Your task to perform on an android device: Show me productivity apps on the Play Store Image 0: 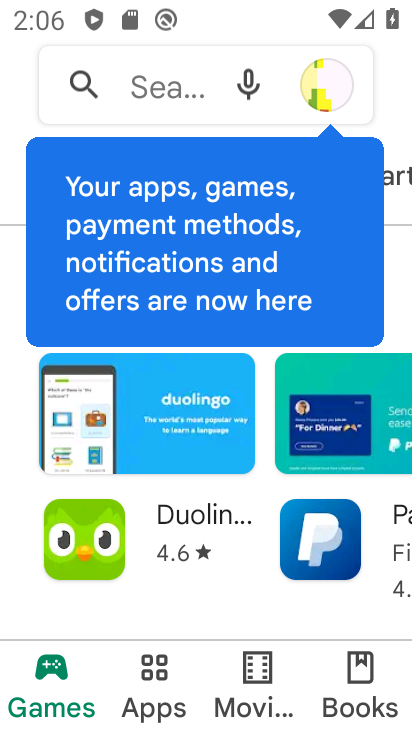
Step 0: press home button
Your task to perform on an android device: Show me productivity apps on the Play Store Image 1: 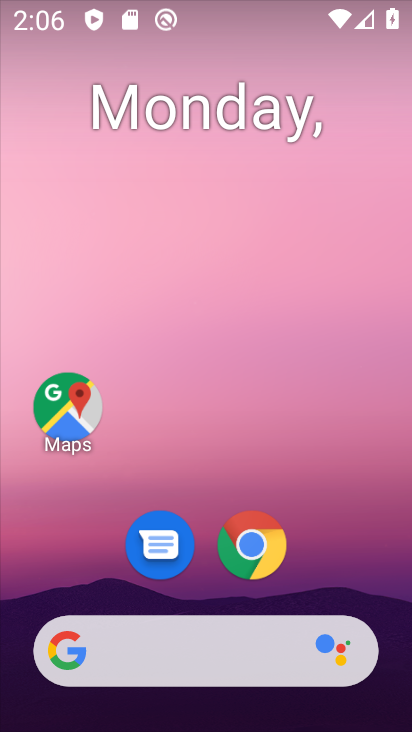
Step 1: drag from (200, 578) to (292, 10)
Your task to perform on an android device: Show me productivity apps on the Play Store Image 2: 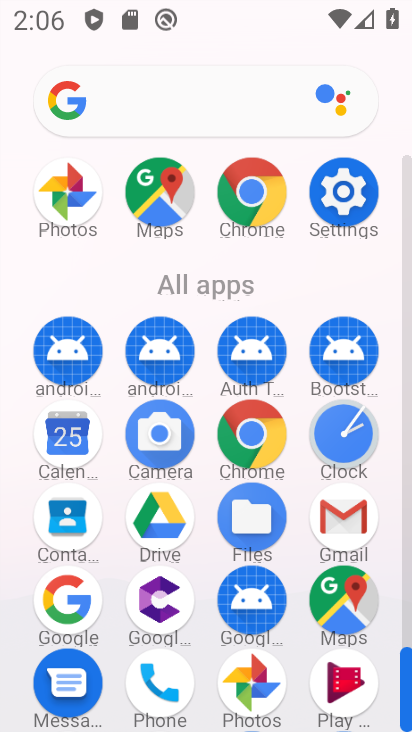
Step 2: drag from (197, 612) to (202, 159)
Your task to perform on an android device: Show me productivity apps on the Play Store Image 3: 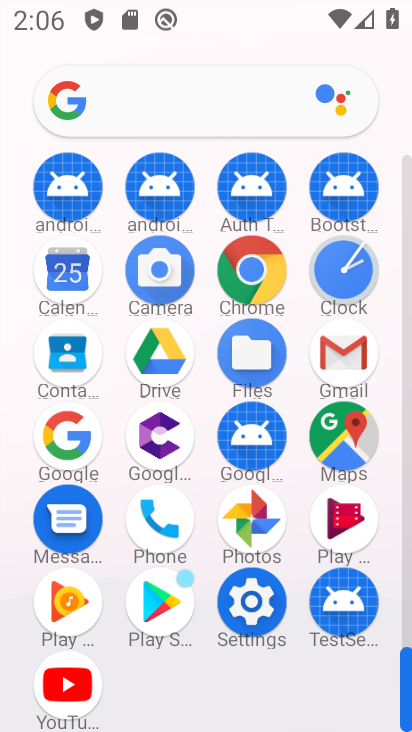
Step 3: click (154, 598)
Your task to perform on an android device: Show me productivity apps on the Play Store Image 4: 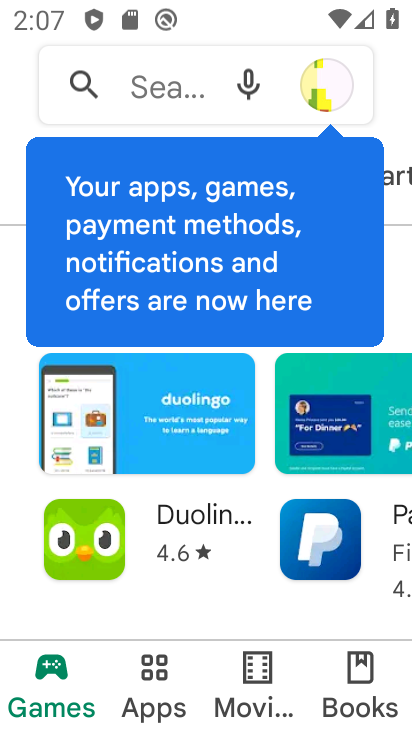
Step 4: click (146, 708)
Your task to perform on an android device: Show me productivity apps on the Play Store Image 5: 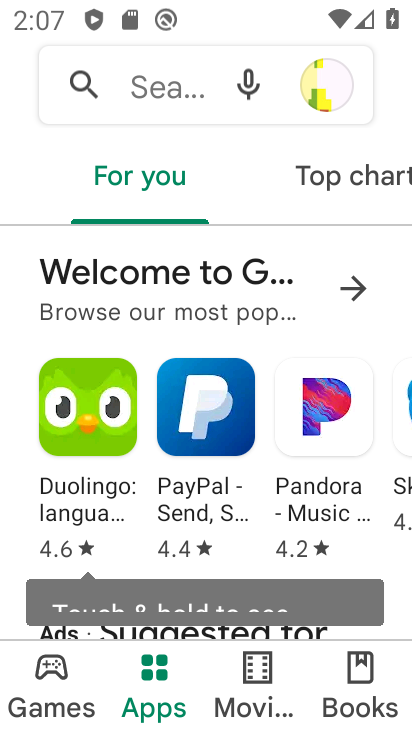
Step 5: drag from (194, 460) to (251, 89)
Your task to perform on an android device: Show me productivity apps on the Play Store Image 6: 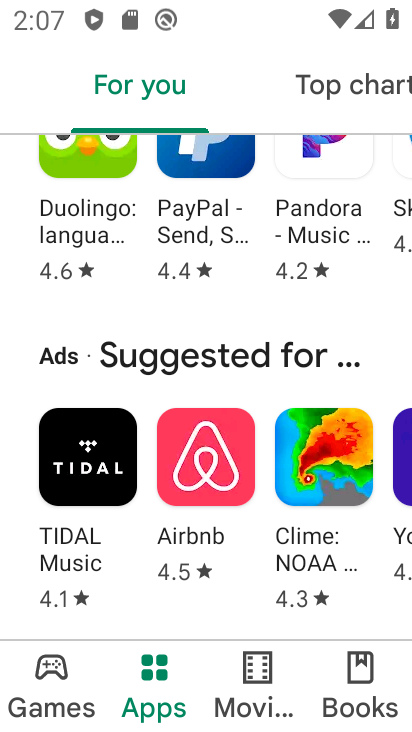
Step 6: drag from (192, 565) to (252, 115)
Your task to perform on an android device: Show me productivity apps on the Play Store Image 7: 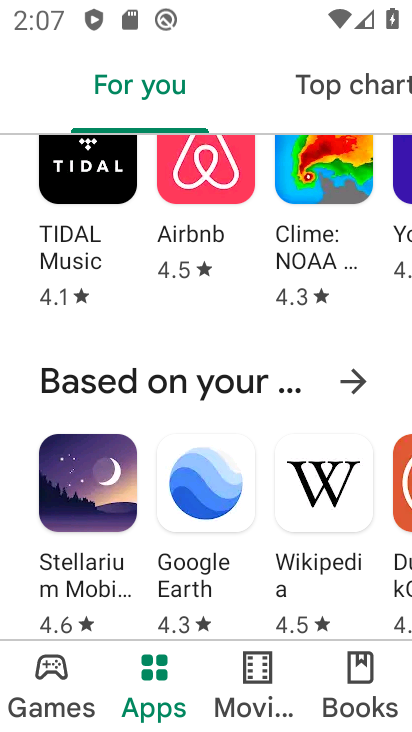
Step 7: drag from (186, 500) to (231, 127)
Your task to perform on an android device: Show me productivity apps on the Play Store Image 8: 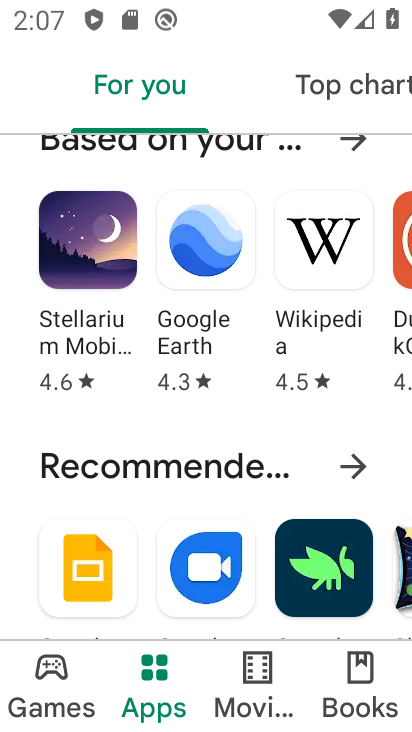
Step 8: drag from (147, 576) to (265, 89)
Your task to perform on an android device: Show me productivity apps on the Play Store Image 9: 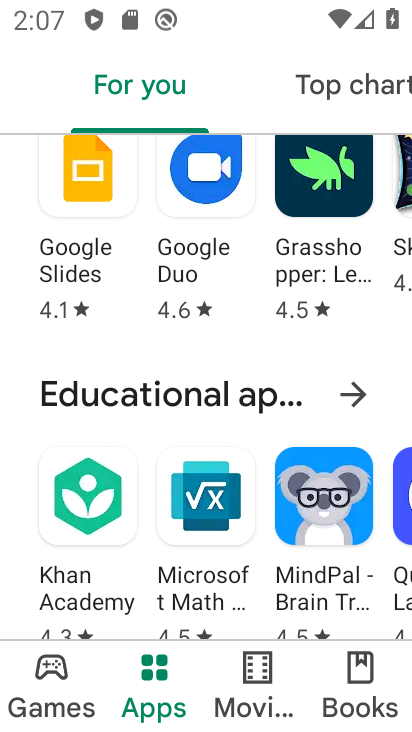
Step 9: drag from (151, 602) to (223, 24)
Your task to perform on an android device: Show me productivity apps on the Play Store Image 10: 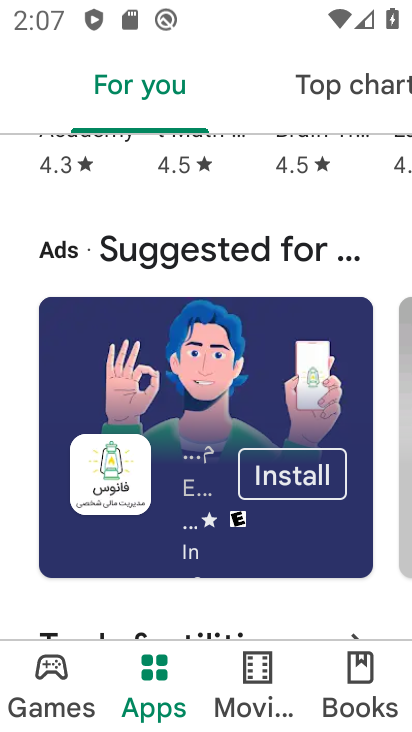
Step 10: drag from (121, 591) to (248, 30)
Your task to perform on an android device: Show me productivity apps on the Play Store Image 11: 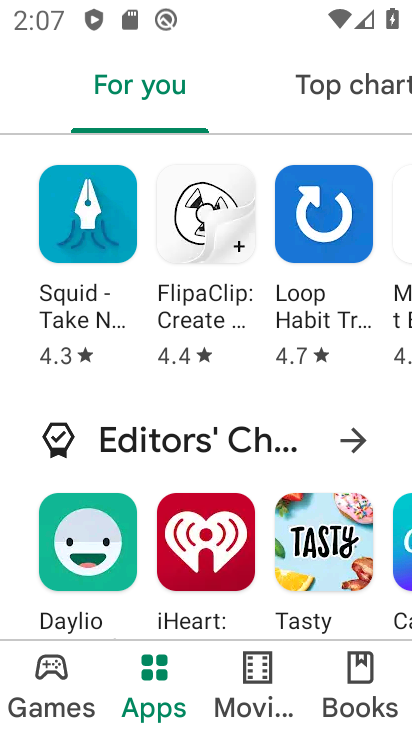
Step 11: drag from (174, 605) to (247, 88)
Your task to perform on an android device: Show me productivity apps on the Play Store Image 12: 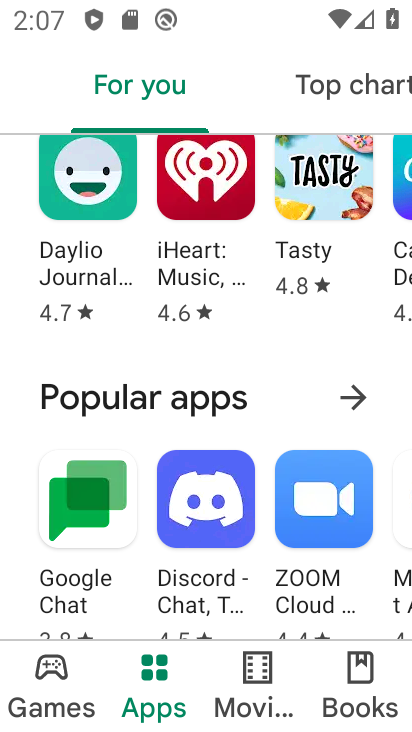
Step 12: drag from (160, 627) to (189, 280)
Your task to perform on an android device: Show me productivity apps on the Play Store Image 13: 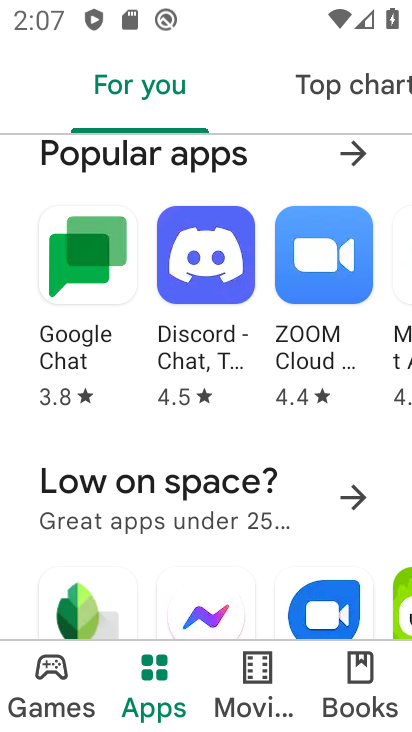
Step 13: drag from (158, 554) to (169, 169)
Your task to perform on an android device: Show me productivity apps on the Play Store Image 14: 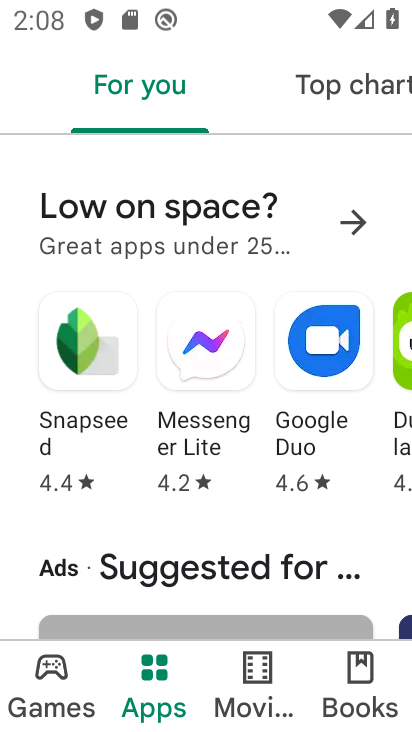
Step 14: drag from (184, 497) to (198, 104)
Your task to perform on an android device: Show me productivity apps on the Play Store Image 15: 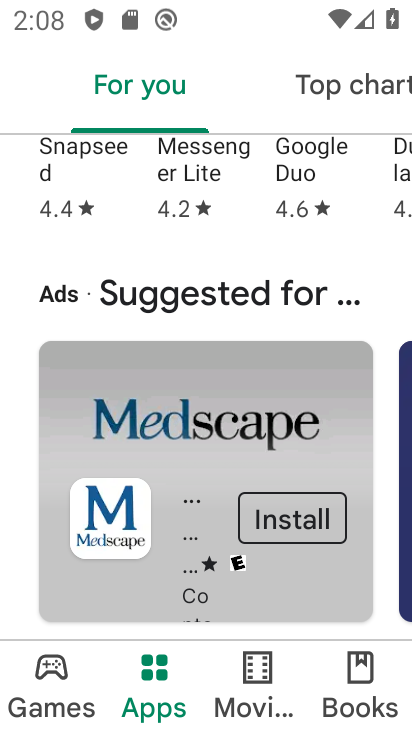
Step 15: drag from (192, 431) to (264, 173)
Your task to perform on an android device: Show me productivity apps on the Play Store Image 16: 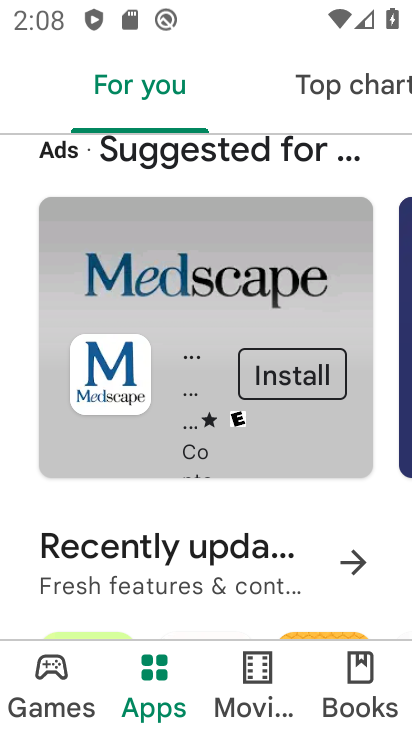
Step 16: drag from (155, 600) to (205, 123)
Your task to perform on an android device: Show me productivity apps on the Play Store Image 17: 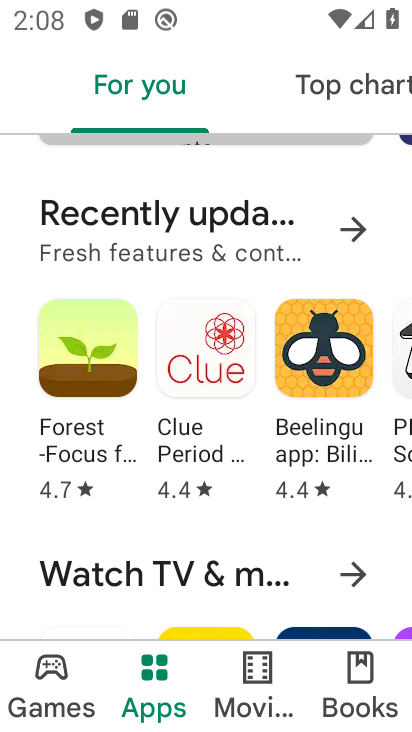
Step 17: drag from (157, 601) to (245, 108)
Your task to perform on an android device: Show me productivity apps on the Play Store Image 18: 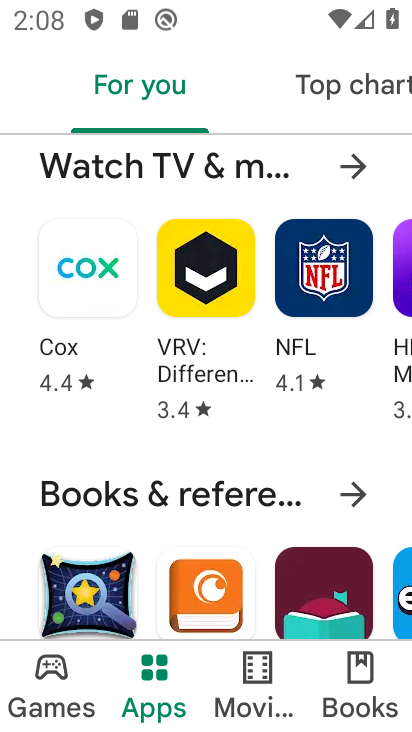
Step 18: drag from (78, 455) to (168, 113)
Your task to perform on an android device: Show me productivity apps on the Play Store Image 19: 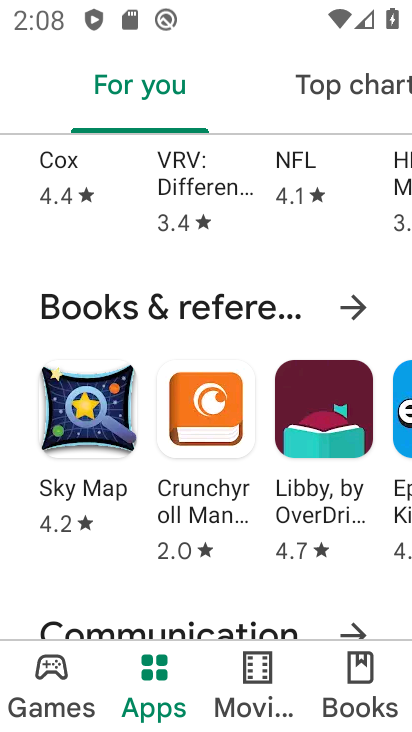
Step 19: drag from (146, 542) to (250, 152)
Your task to perform on an android device: Show me productivity apps on the Play Store Image 20: 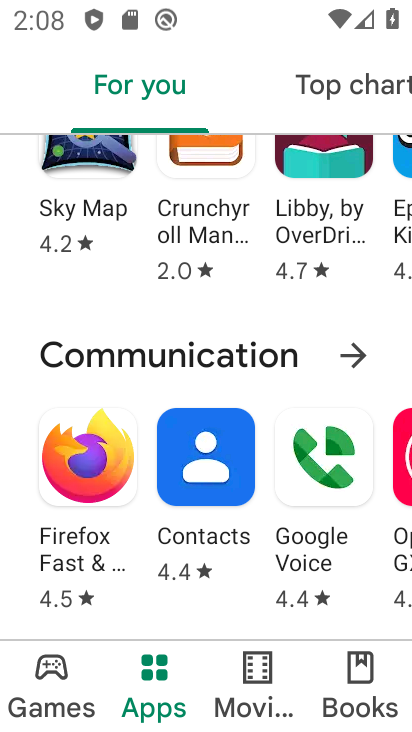
Step 20: drag from (193, 547) to (284, 57)
Your task to perform on an android device: Show me productivity apps on the Play Store Image 21: 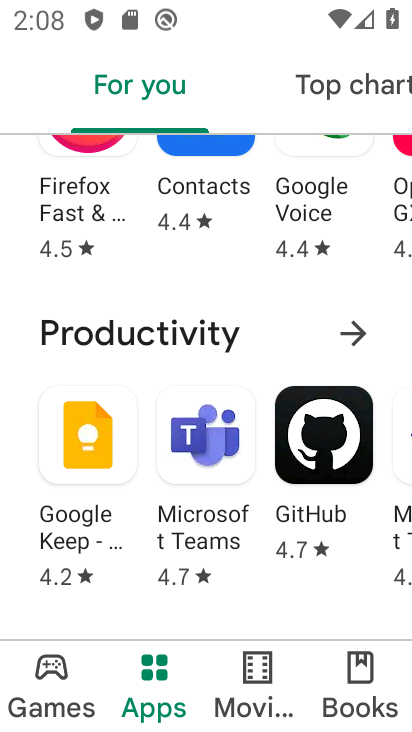
Step 21: drag from (188, 607) to (215, 469)
Your task to perform on an android device: Show me productivity apps on the Play Store Image 22: 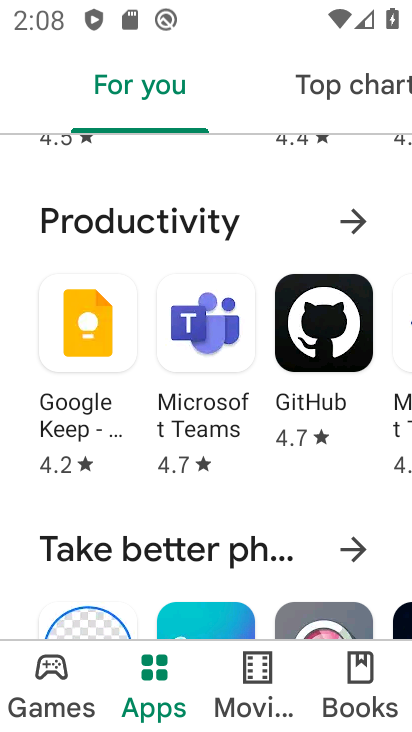
Step 22: click (351, 218)
Your task to perform on an android device: Show me productivity apps on the Play Store Image 23: 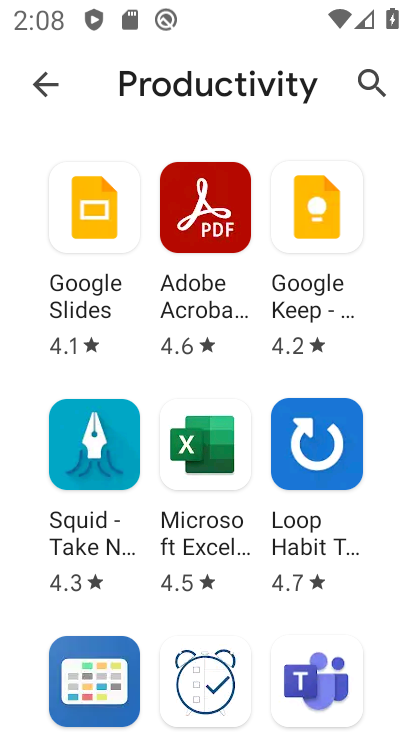
Step 23: task complete